Your task to perform on an android device: Open settings Image 0: 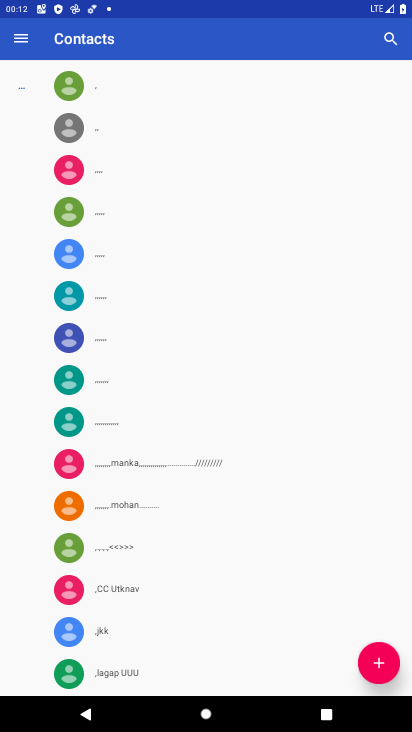
Step 0: press home button
Your task to perform on an android device: Open settings Image 1: 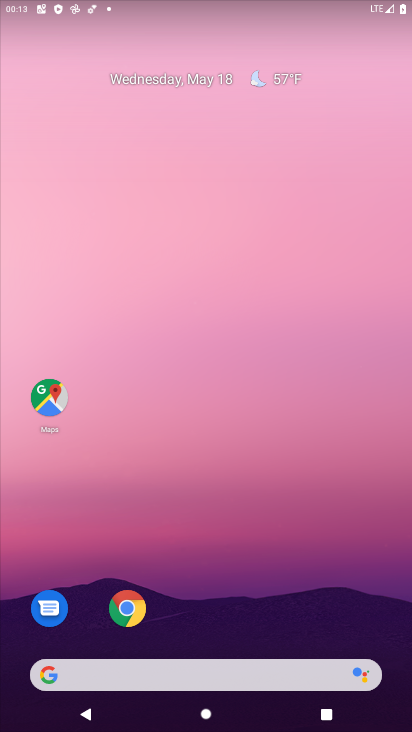
Step 1: drag from (256, 526) to (157, 73)
Your task to perform on an android device: Open settings Image 2: 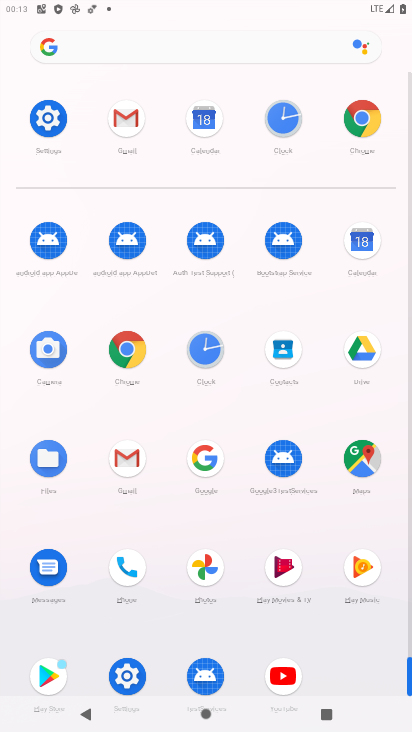
Step 2: click (52, 113)
Your task to perform on an android device: Open settings Image 3: 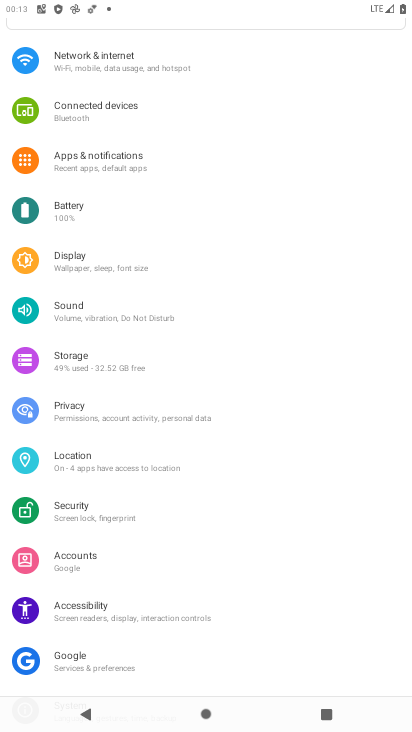
Step 3: task complete